Your task to perform on an android device: Open settings on Google Maps Image 0: 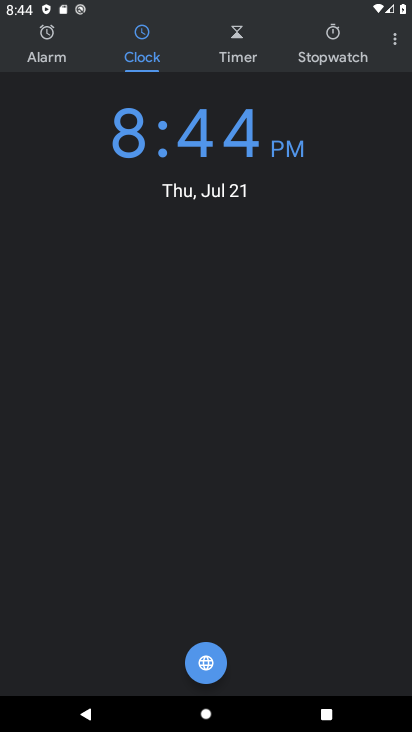
Step 0: press home button
Your task to perform on an android device: Open settings on Google Maps Image 1: 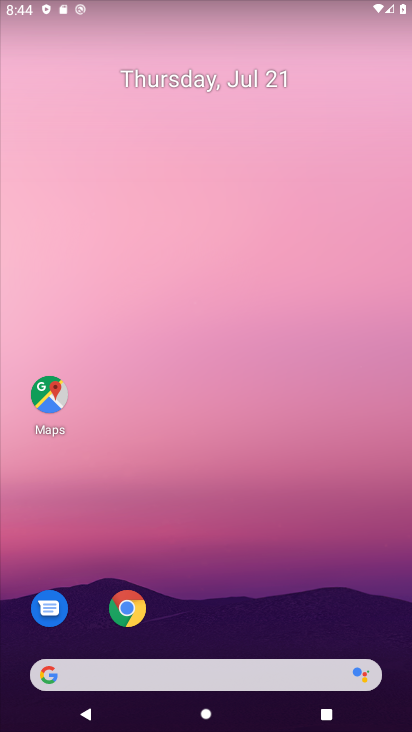
Step 1: click (55, 397)
Your task to perform on an android device: Open settings on Google Maps Image 2: 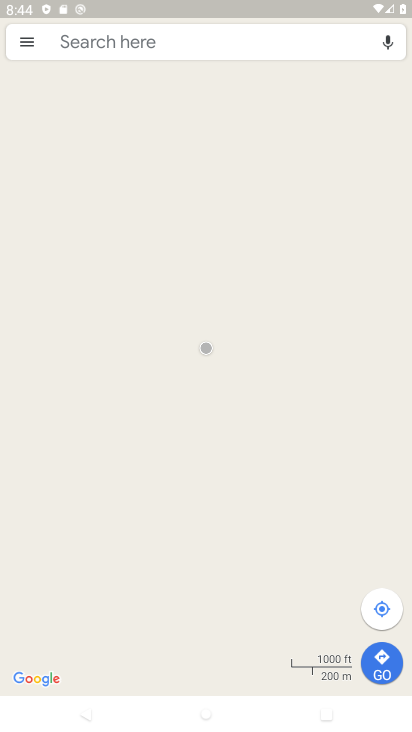
Step 2: click (34, 39)
Your task to perform on an android device: Open settings on Google Maps Image 3: 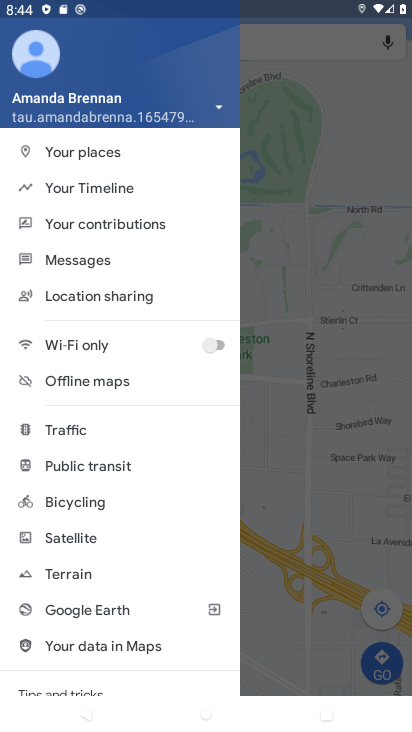
Step 3: drag from (127, 598) to (110, 286)
Your task to perform on an android device: Open settings on Google Maps Image 4: 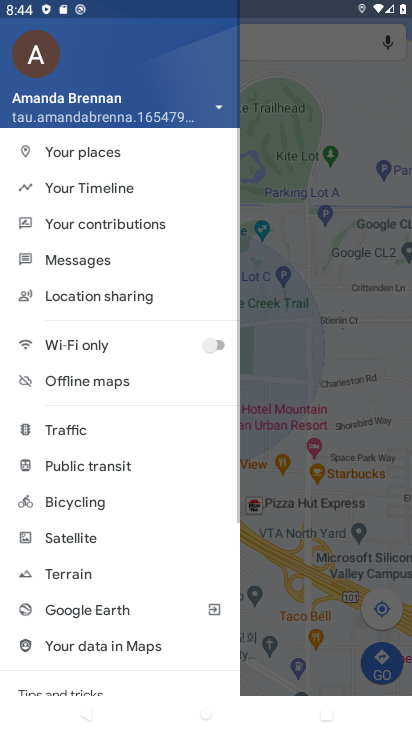
Step 4: drag from (90, 625) to (80, 385)
Your task to perform on an android device: Open settings on Google Maps Image 5: 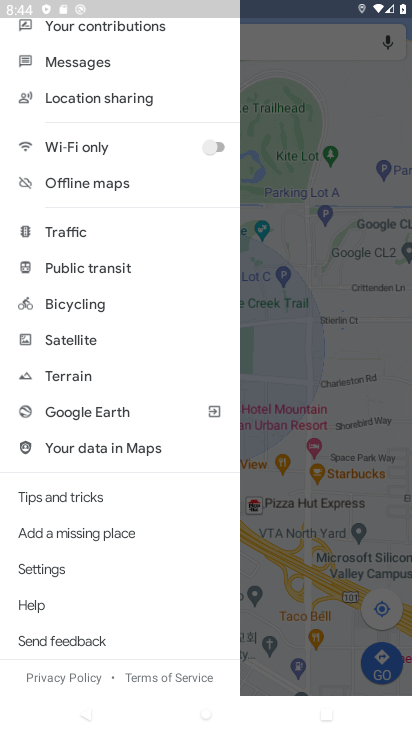
Step 5: click (54, 572)
Your task to perform on an android device: Open settings on Google Maps Image 6: 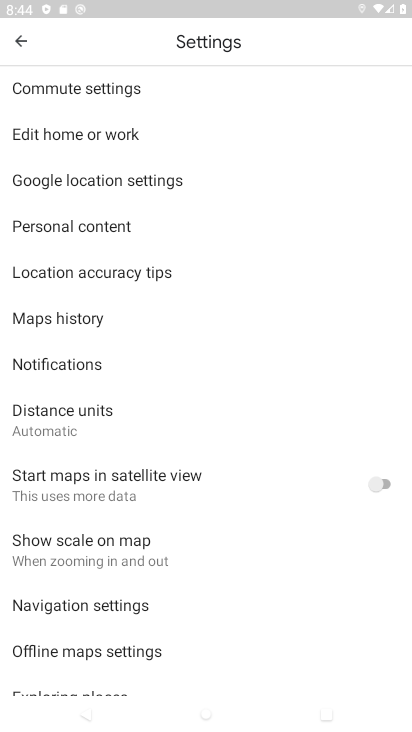
Step 6: task complete